Your task to perform on an android device: turn on translation in the chrome app Image 0: 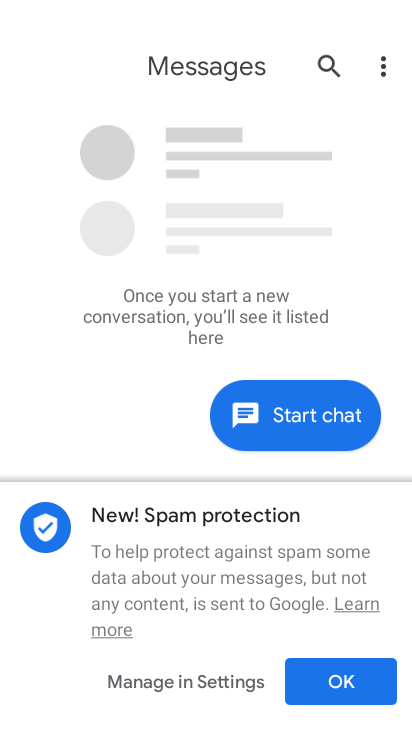
Step 0: drag from (208, 517) to (170, 359)
Your task to perform on an android device: turn on translation in the chrome app Image 1: 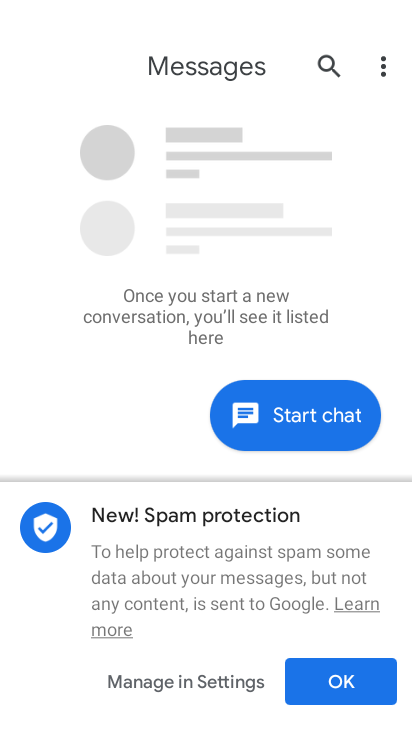
Step 1: press home button
Your task to perform on an android device: turn on translation in the chrome app Image 2: 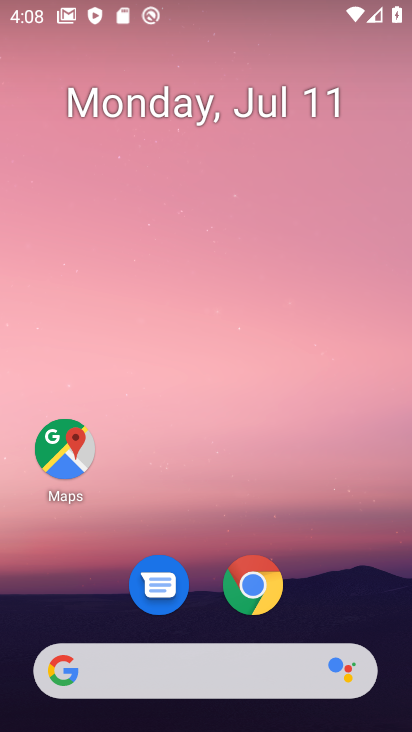
Step 2: drag from (187, 498) to (220, 218)
Your task to perform on an android device: turn on translation in the chrome app Image 3: 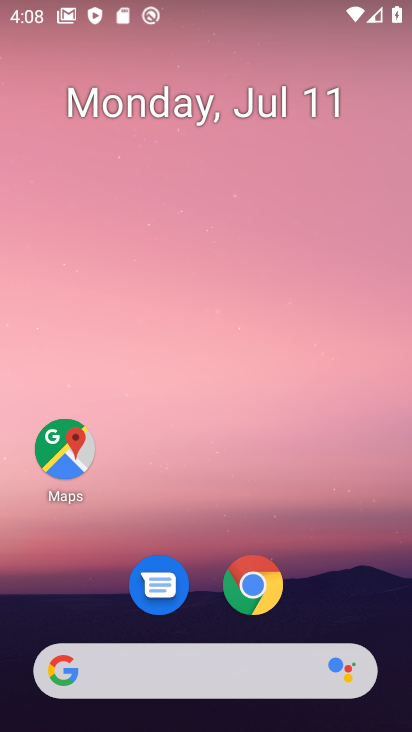
Step 3: drag from (203, 523) to (242, 77)
Your task to perform on an android device: turn on translation in the chrome app Image 4: 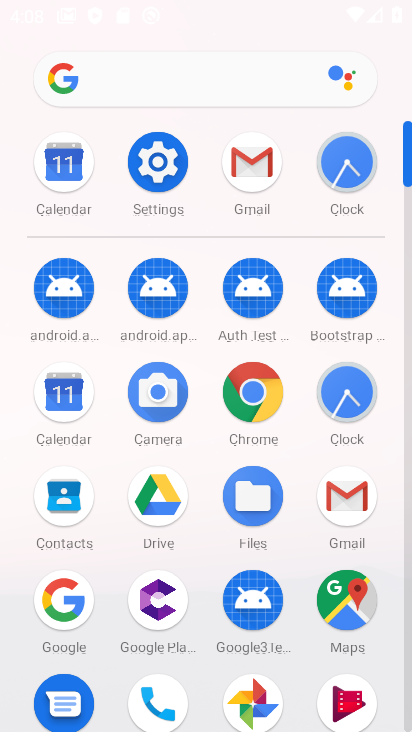
Step 4: click (268, 400)
Your task to perform on an android device: turn on translation in the chrome app Image 5: 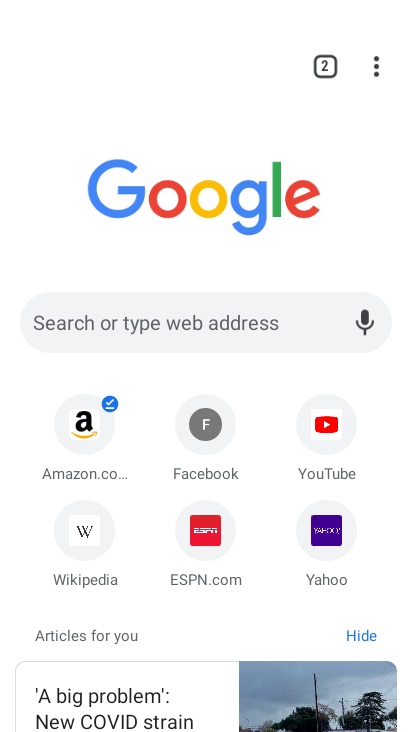
Step 5: click (376, 74)
Your task to perform on an android device: turn on translation in the chrome app Image 6: 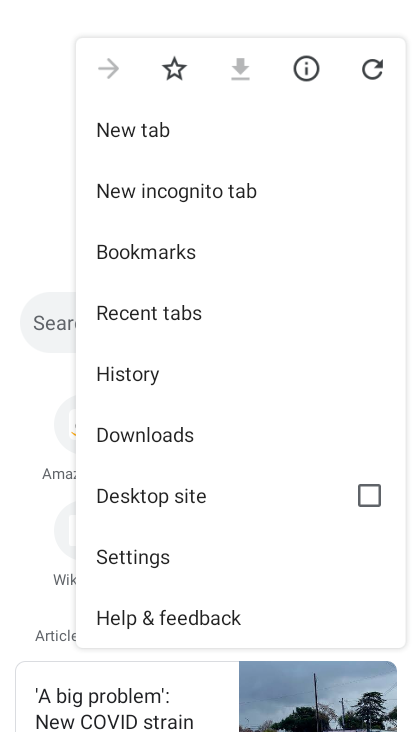
Step 6: click (142, 556)
Your task to perform on an android device: turn on translation in the chrome app Image 7: 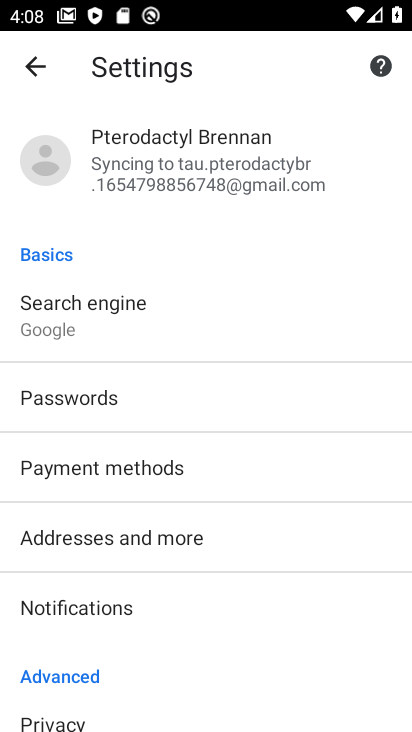
Step 7: drag from (244, 609) to (280, 154)
Your task to perform on an android device: turn on translation in the chrome app Image 8: 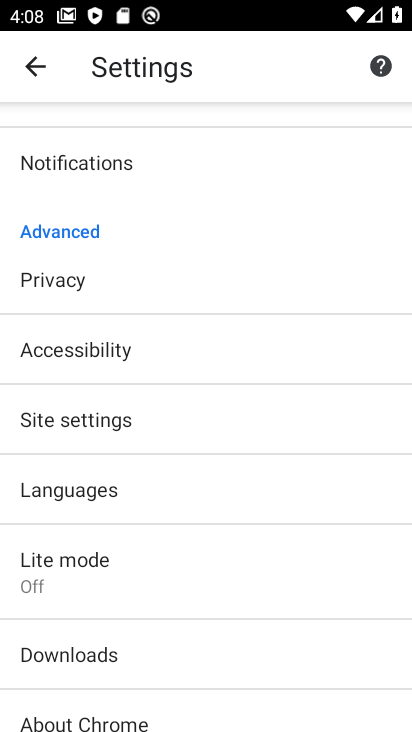
Step 8: click (118, 492)
Your task to perform on an android device: turn on translation in the chrome app Image 9: 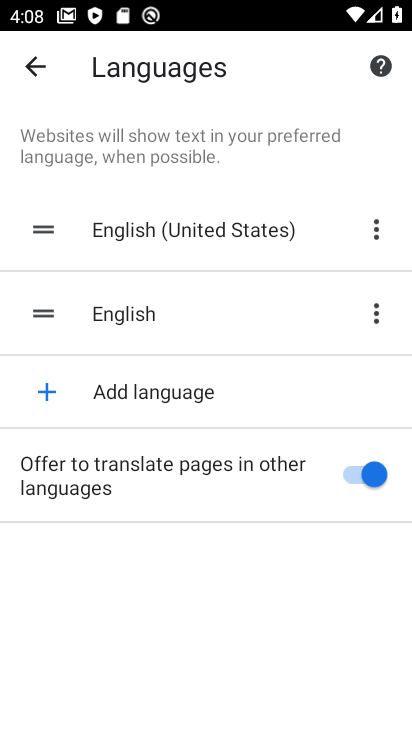
Step 9: task complete